Your task to perform on an android device: Open Google Chrome Image 0: 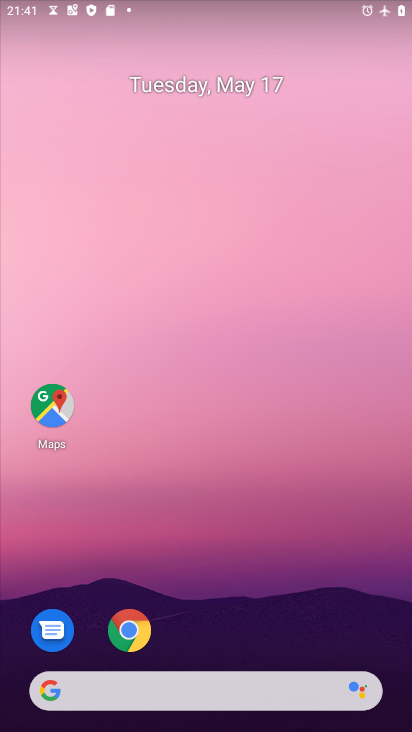
Step 0: click (142, 629)
Your task to perform on an android device: Open Google Chrome Image 1: 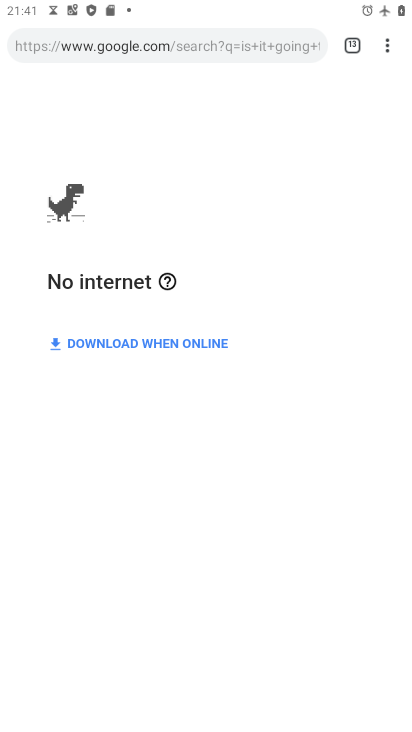
Step 1: task complete